Your task to perform on an android device: open sync settings in chrome Image 0: 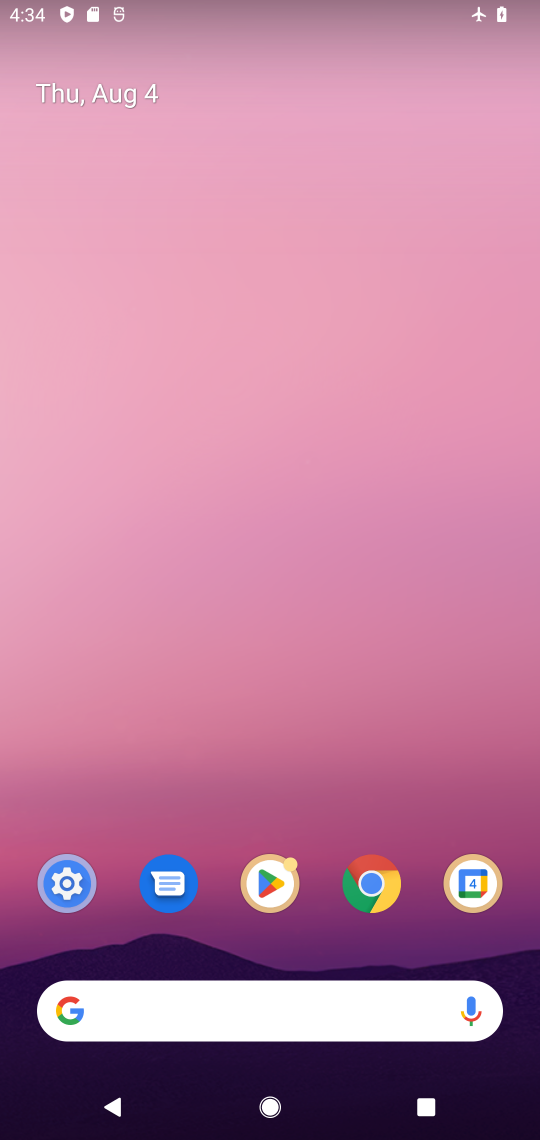
Step 0: drag from (381, 854) to (101, 20)
Your task to perform on an android device: open sync settings in chrome Image 1: 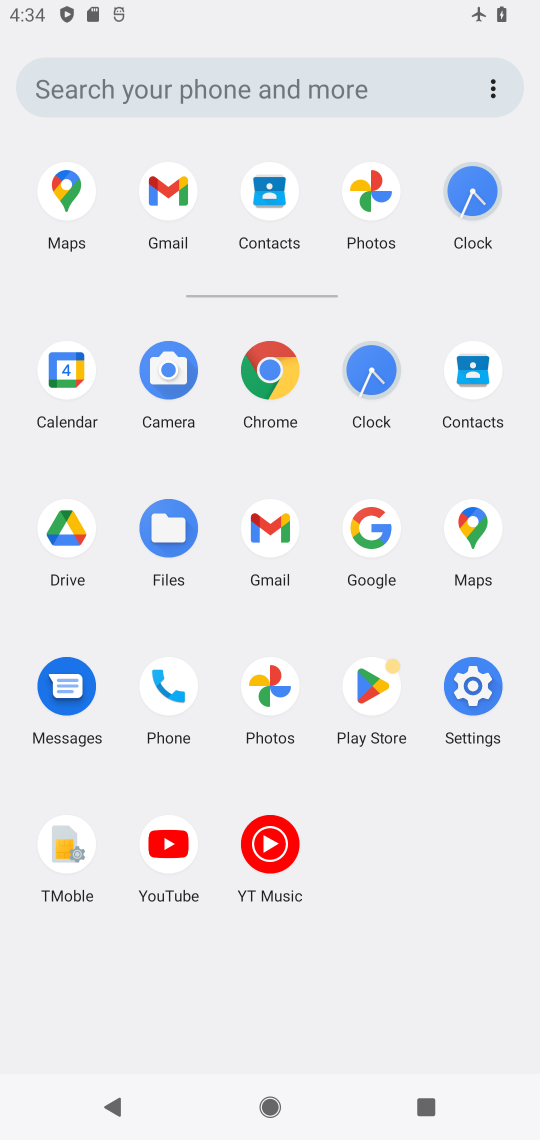
Step 1: click (248, 362)
Your task to perform on an android device: open sync settings in chrome Image 2: 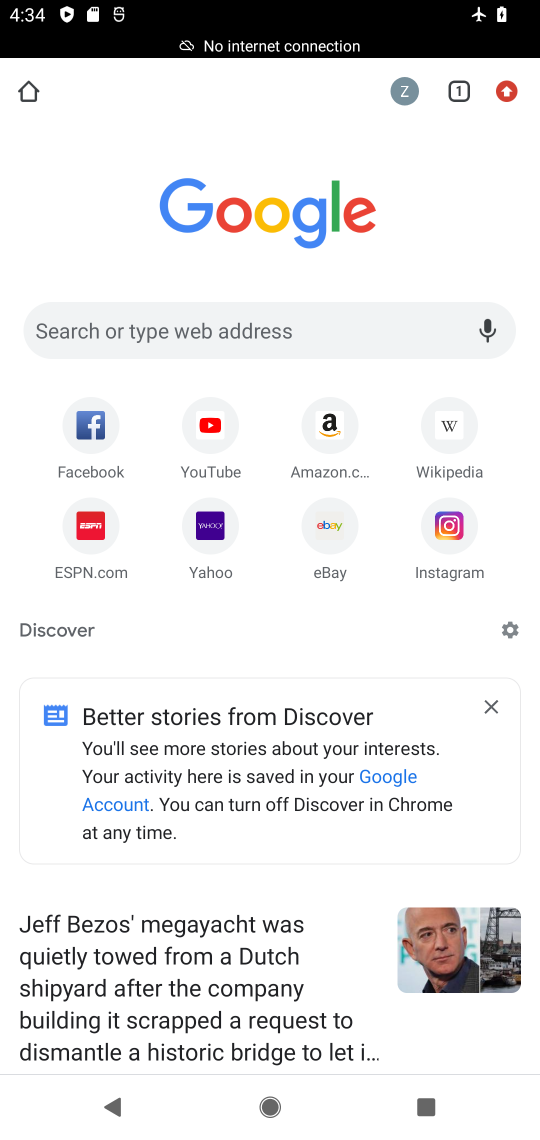
Step 2: task complete